Your task to perform on an android device: Open wifi settings Image 0: 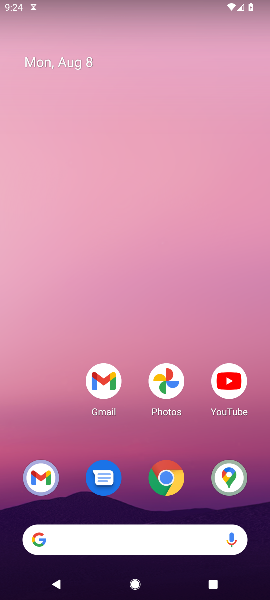
Step 0: press home button
Your task to perform on an android device: Open wifi settings Image 1: 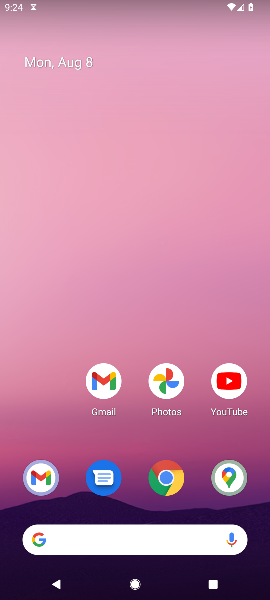
Step 1: drag from (137, 535) to (207, 106)
Your task to perform on an android device: Open wifi settings Image 2: 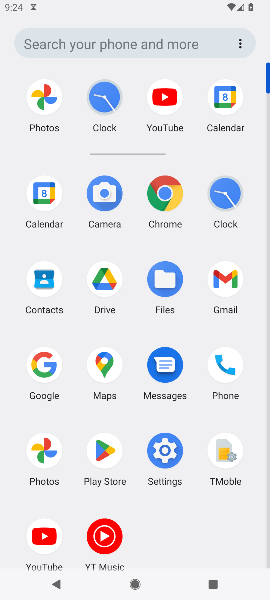
Step 2: click (167, 461)
Your task to perform on an android device: Open wifi settings Image 3: 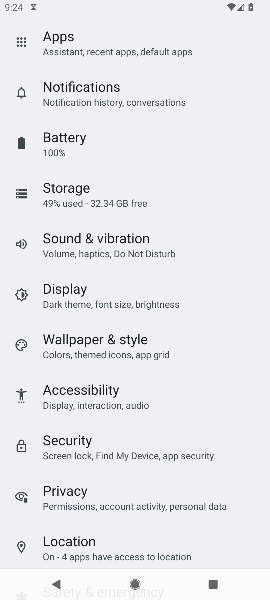
Step 3: drag from (232, 156) to (156, 539)
Your task to perform on an android device: Open wifi settings Image 4: 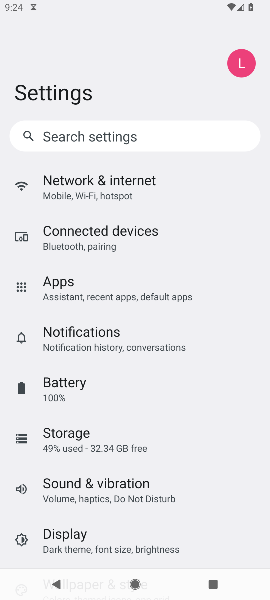
Step 4: click (95, 180)
Your task to perform on an android device: Open wifi settings Image 5: 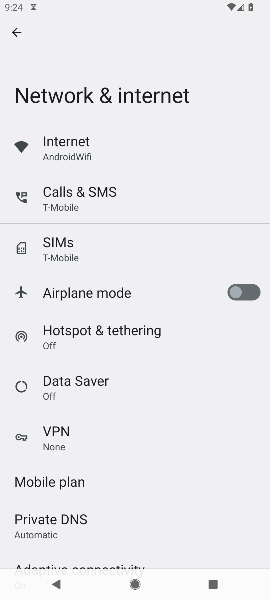
Step 5: click (68, 138)
Your task to perform on an android device: Open wifi settings Image 6: 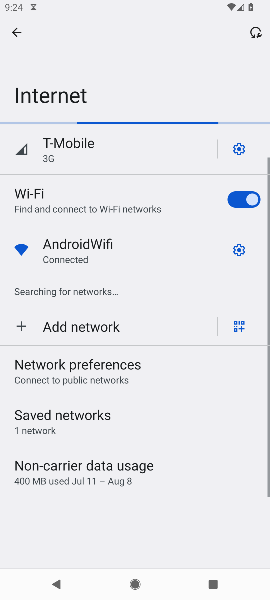
Step 6: click (239, 246)
Your task to perform on an android device: Open wifi settings Image 7: 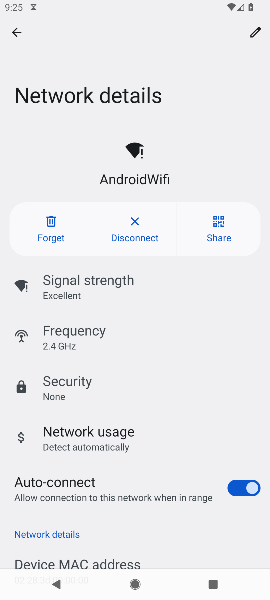
Step 7: task complete